Your task to perform on an android device: turn off location history Image 0: 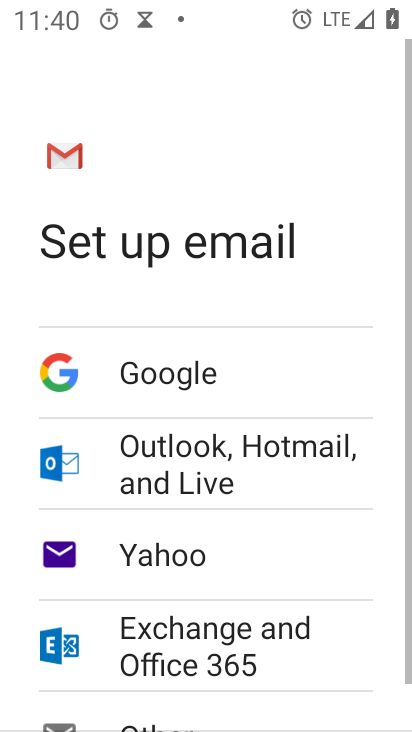
Step 0: press home button
Your task to perform on an android device: turn off location history Image 1: 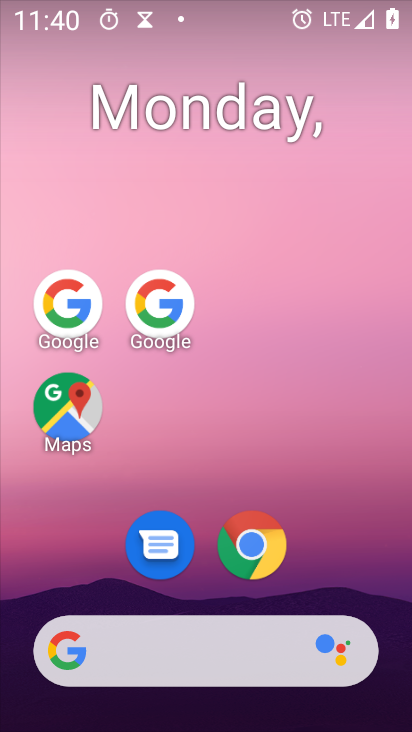
Step 1: click (69, 405)
Your task to perform on an android device: turn off location history Image 2: 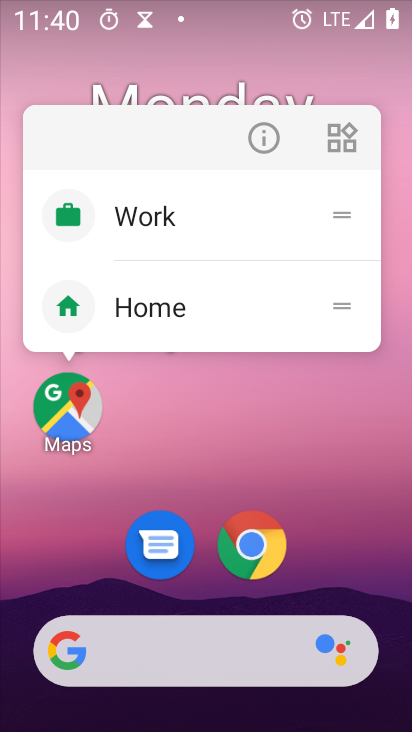
Step 2: click (69, 405)
Your task to perform on an android device: turn off location history Image 3: 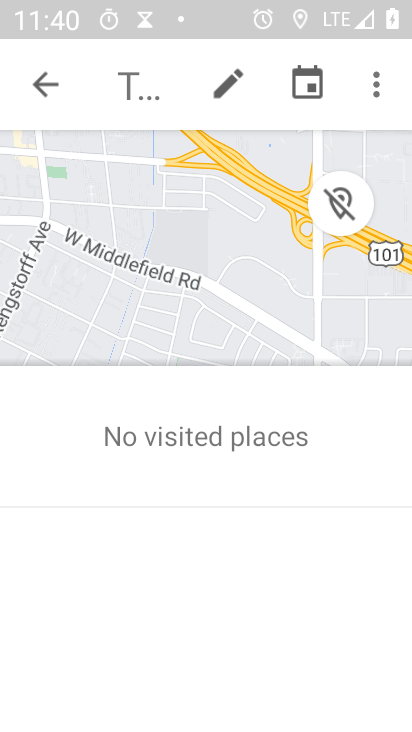
Step 3: click (56, 80)
Your task to perform on an android device: turn off location history Image 4: 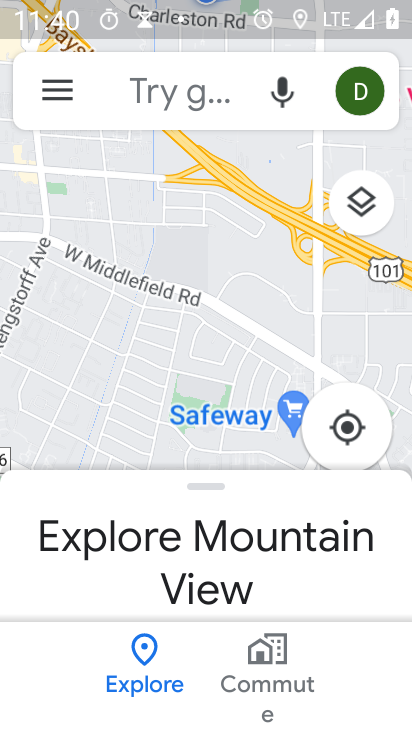
Step 4: click (54, 77)
Your task to perform on an android device: turn off location history Image 5: 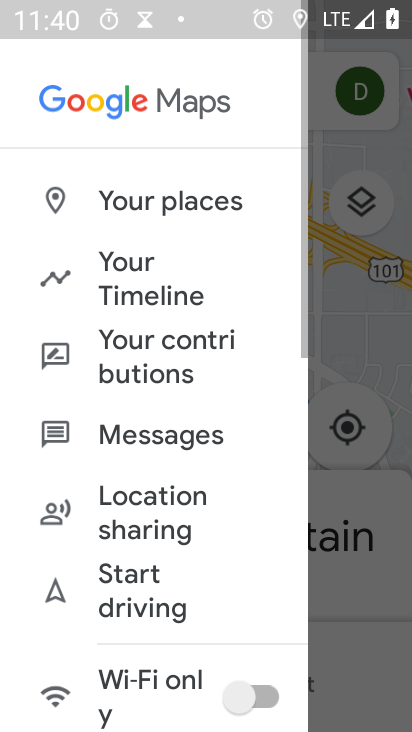
Step 5: click (164, 274)
Your task to perform on an android device: turn off location history Image 6: 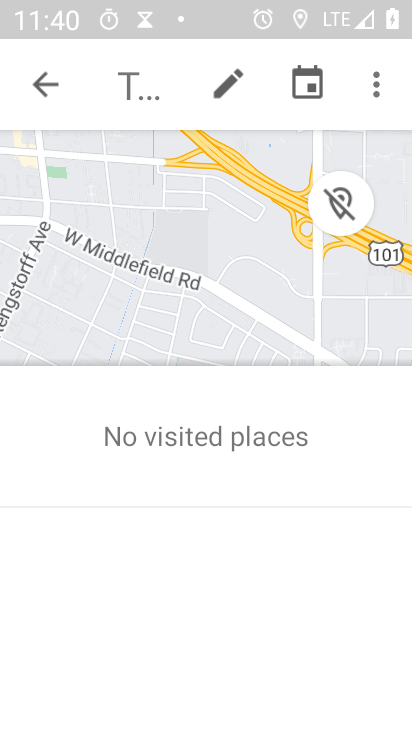
Step 6: click (376, 94)
Your task to perform on an android device: turn off location history Image 7: 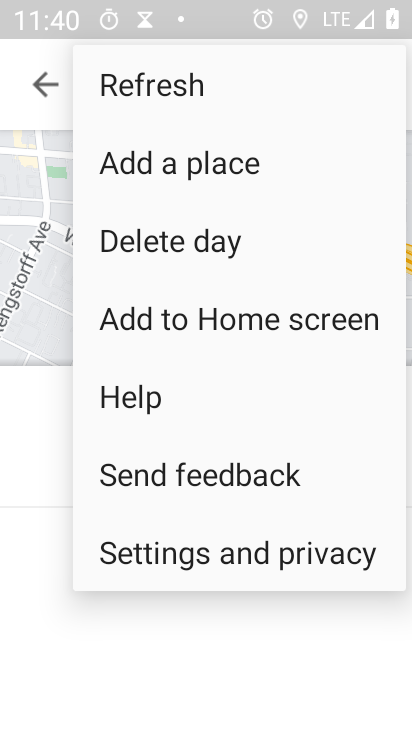
Step 7: click (173, 544)
Your task to perform on an android device: turn off location history Image 8: 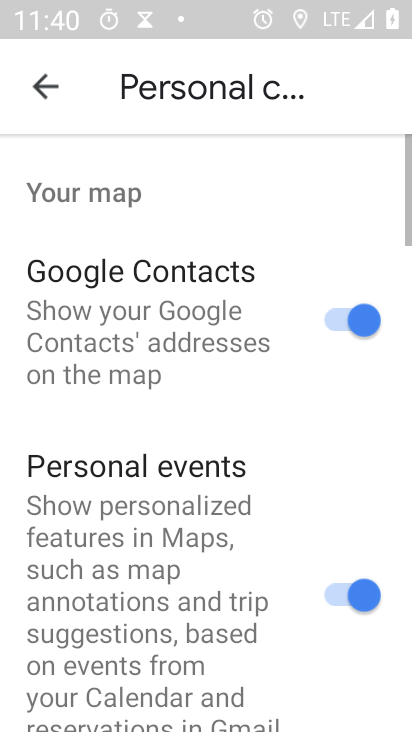
Step 8: drag from (151, 611) to (299, 151)
Your task to perform on an android device: turn off location history Image 9: 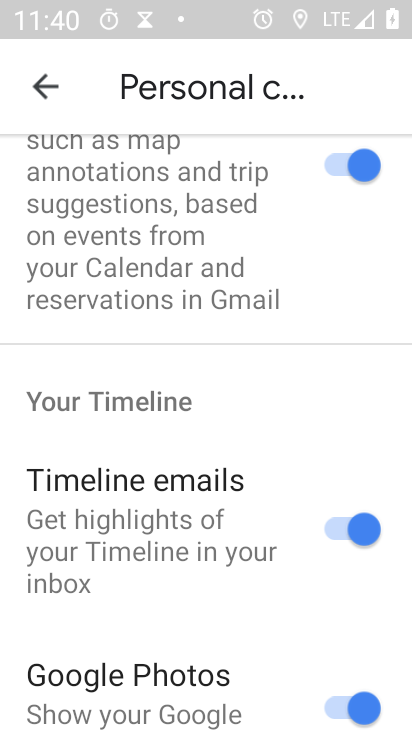
Step 9: drag from (159, 651) to (252, 26)
Your task to perform on an android device: turn off location history Image 10: 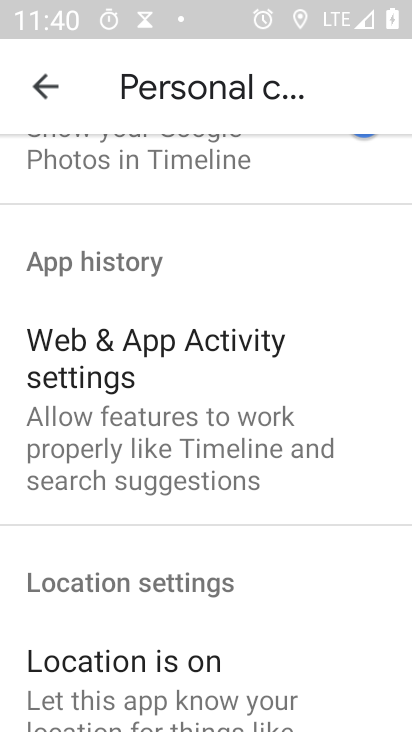
Step 10: drag from (172, 562) to (323, 84)
Your task to perform on an android device: turn off location history Image 11: 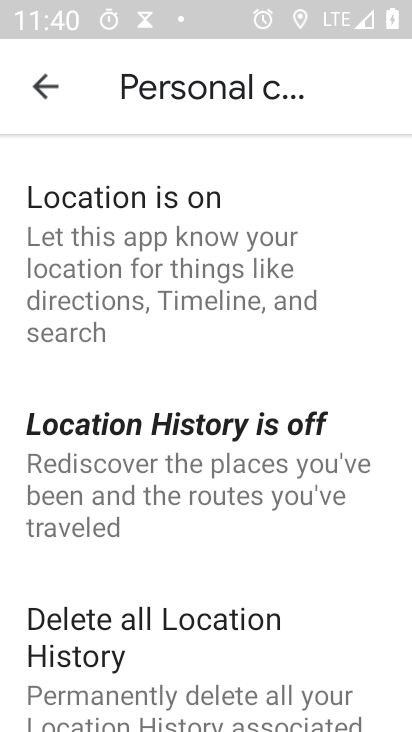
Step 11: click (207, 471)
Your task to perform on an android device: turn off location history Image 12: 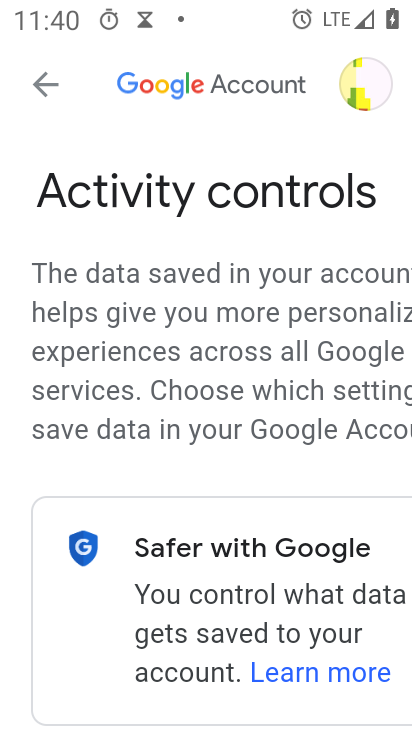
Step 12: drag from (247, 618) to (411, 171)
Your task to perform on an android device: turn off location history Image 13: 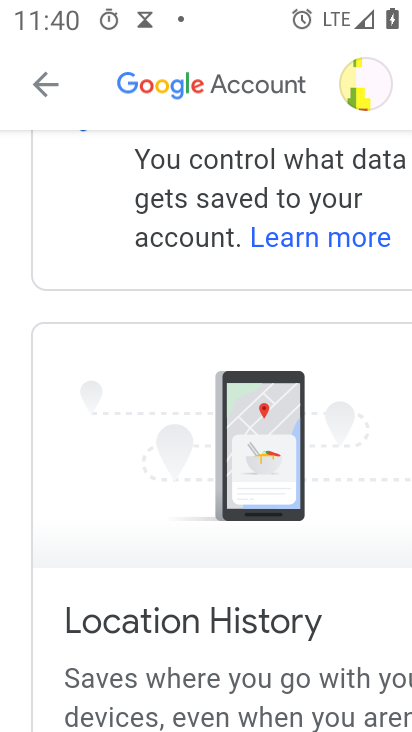
Step 13: drag from (189, 625) to (346, 64)
Your task to perform on an android device: turn off location history Image 14: 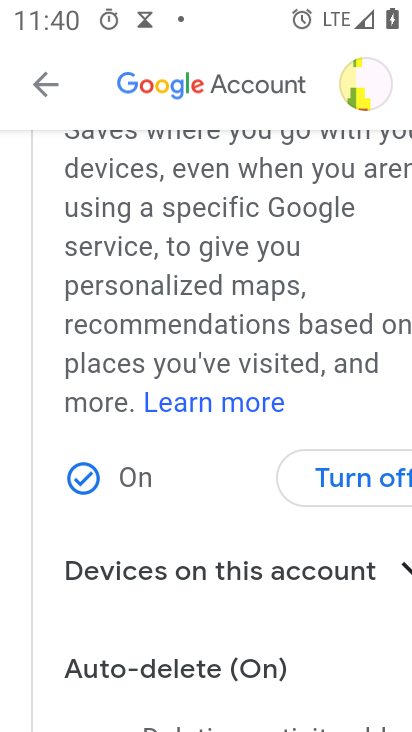
Step 14: drag from (206, 569) to (304, 226)
Your task to perform on an android device: turn off location history Image 15: 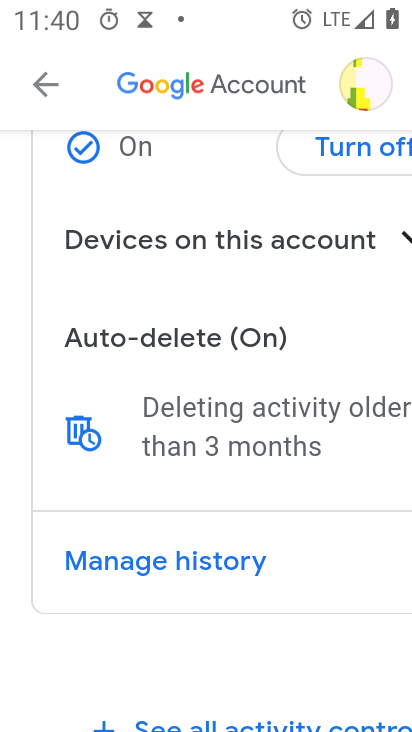
Step 15: click (360, 152)
Your task to perform on an android device: turn off location history Image 16: 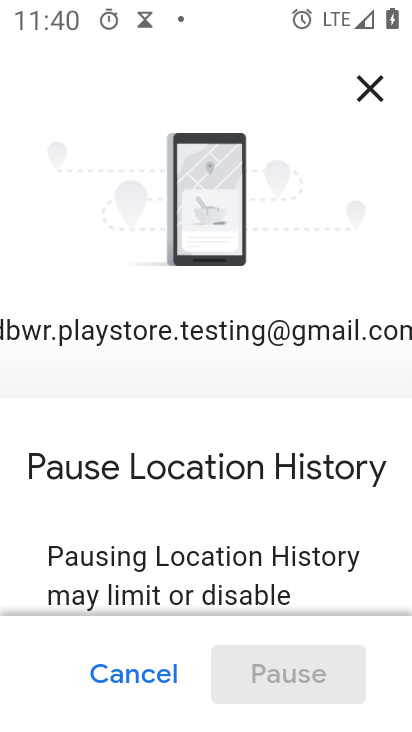
Step 16: drag from (242, 553) to (351, 14)
Your task to perform on an android device: turn off location history Image 17: 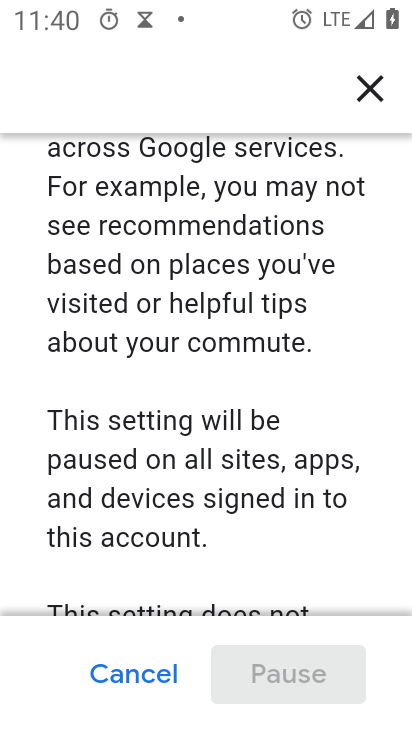
Step 17: drag from (254, 549) to (362, 32)
Your task to perform on an android device: turn off location history Image 18: 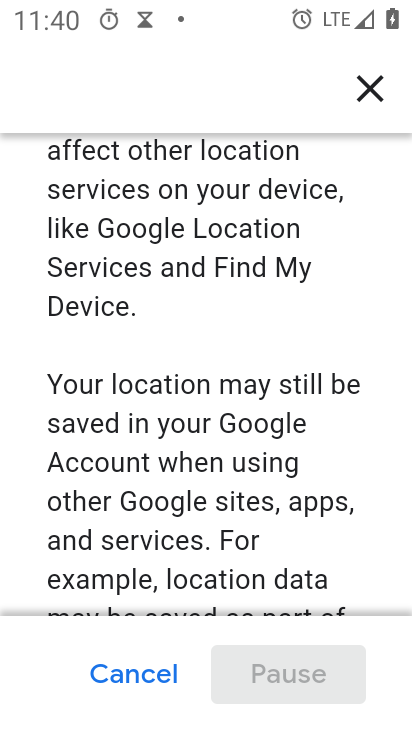
Step 18: drag from (278, 540) to (320, 8)
Your task to perform on an android device: turn off location history Image 19: 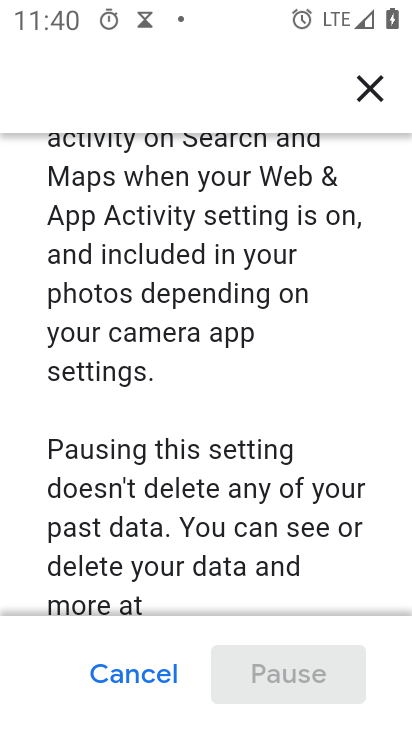
Step 19: drag from (301, 557) to (378, 11)
Your task to perform on an android device: turn off location history Image 20: 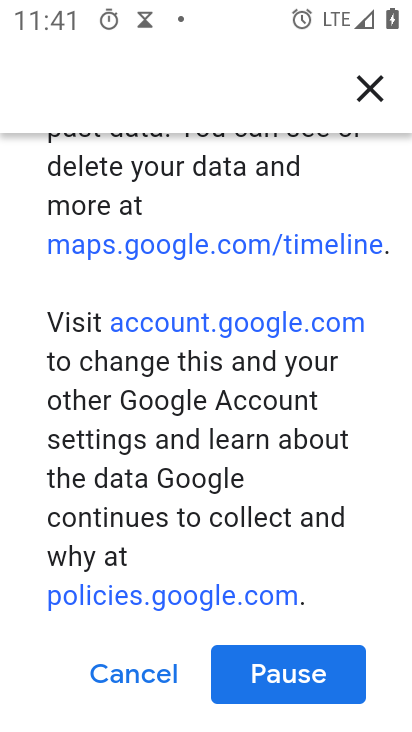
Step 20: click (297, 668)
Your task to perform on an android device: turn off location history Image 21: 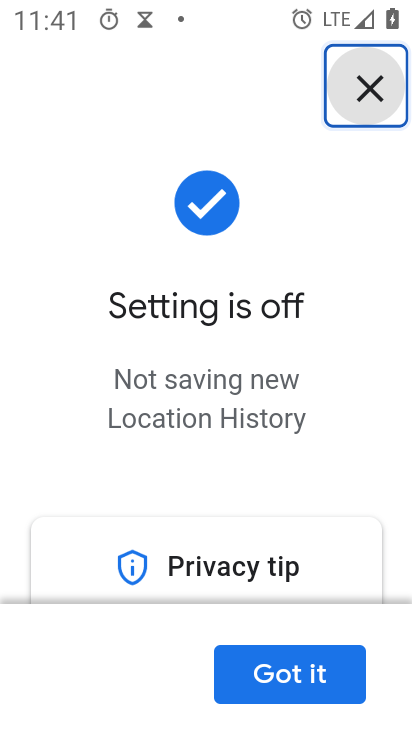
Step 21: click (297, 669)
Your task to perform on an android device: turn off location history Image 22: 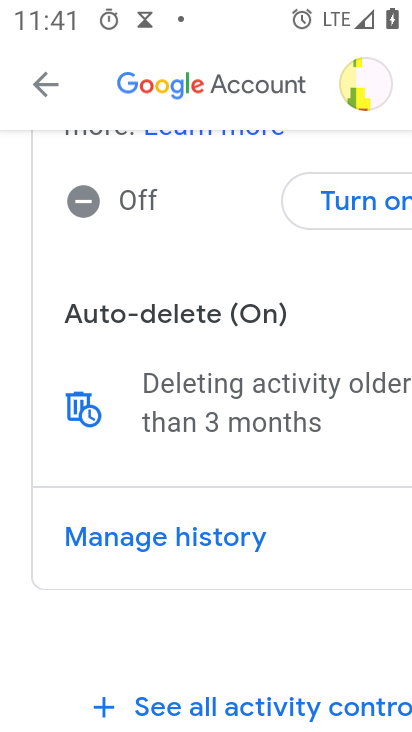
Step 22: task complete